Your task to perform on an android device: Go to privacy settings Image 0: 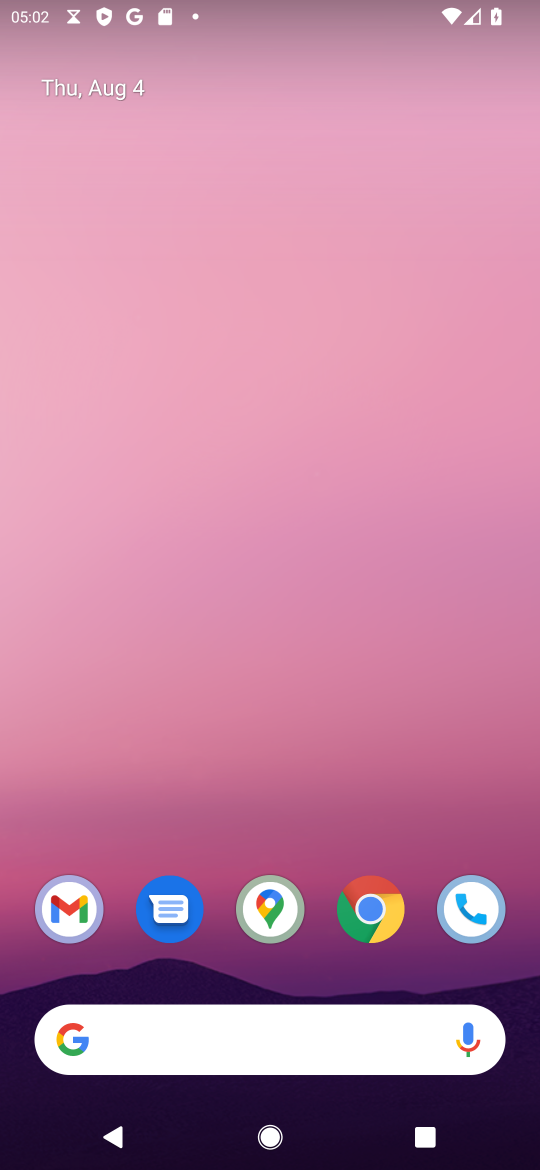
Step 0: drag from (245, 1029) to (475, 388)
Your task to perform on an android device: Go to privacy settings Image 1: 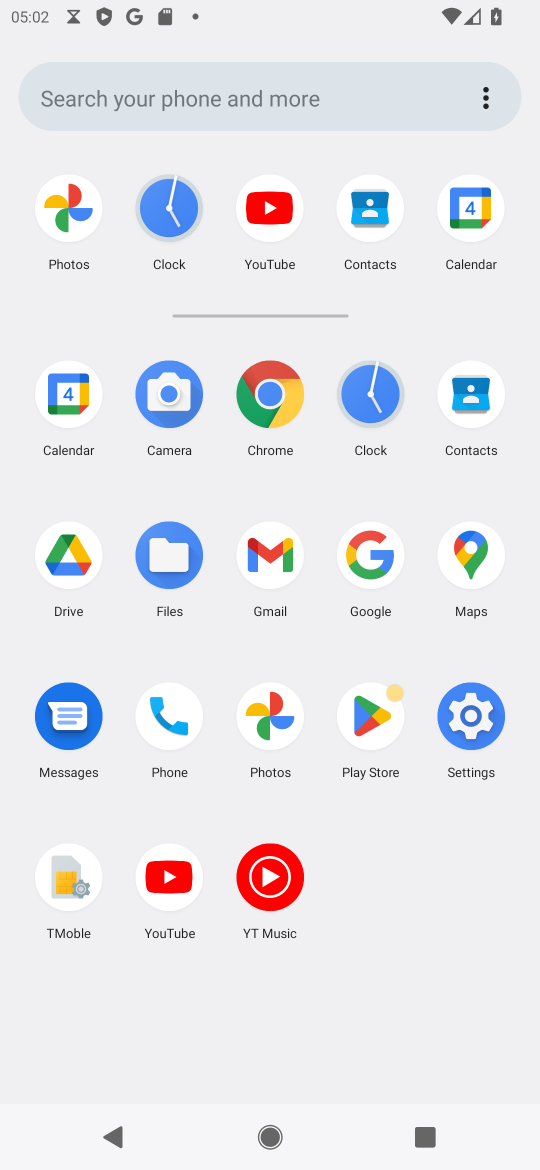
Step 1: click (475, 730)
Your task to perform on an android device: Go to privacy settings Image 2: 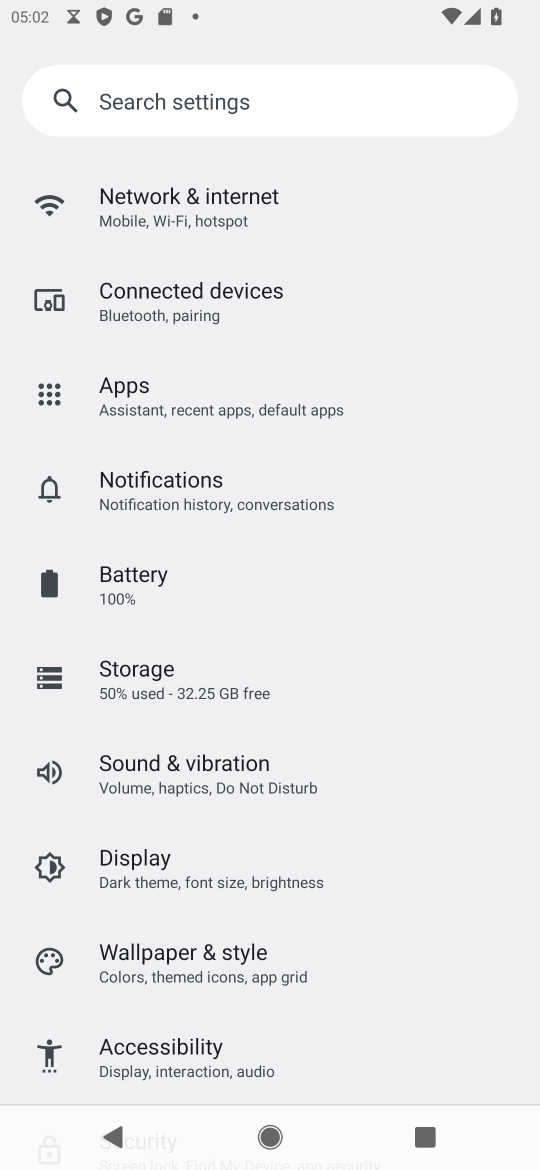
Step 2: drag from (374, 877) to (463, 398)
Your task to perform on an android device: Go to privacy settings Image 3: 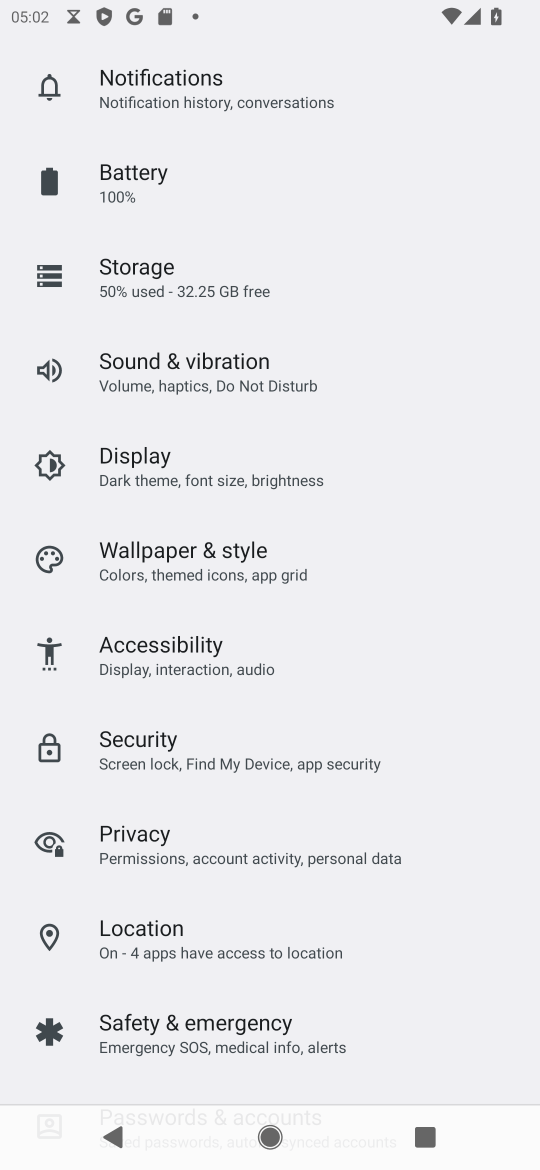
Step 3: click (143, 829)
Your task to perform on an android device: Go to privacy settings Image 4: 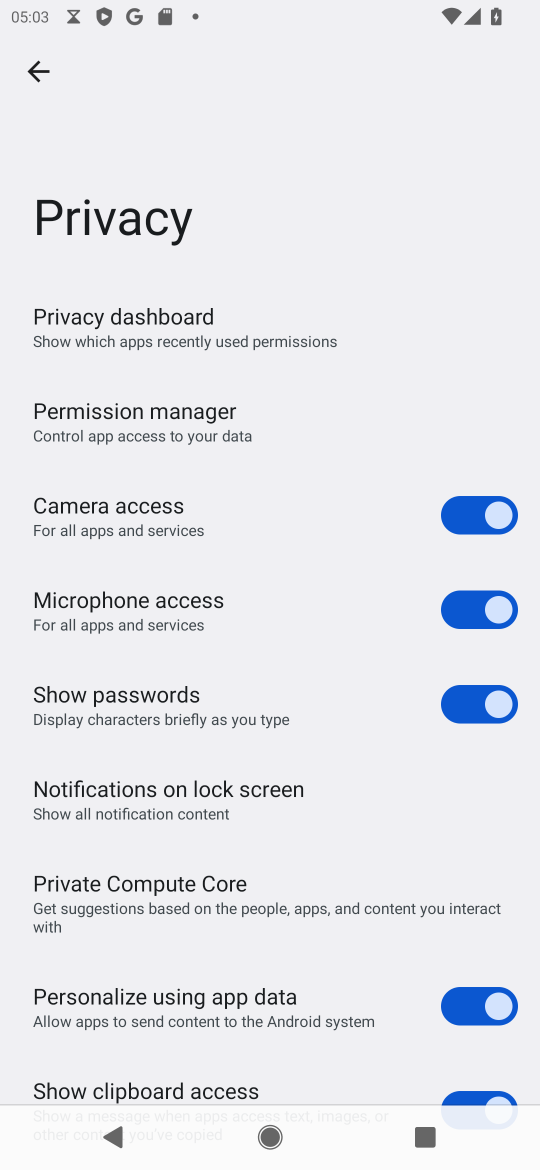
Step 4: task complete